Your task to perform on an android device: show emergency info Image 0: 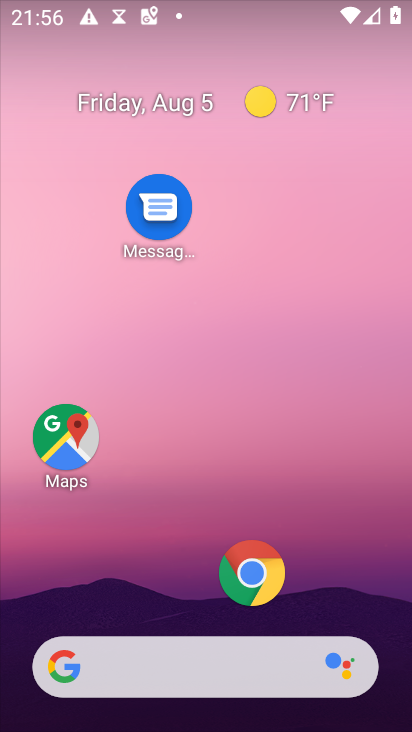
Step 0: press home button
Your task to perform on an android device: show emergency info Image 1: 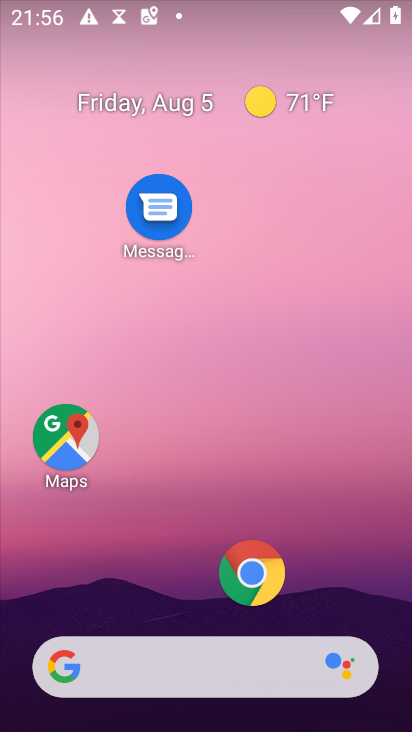
Step 1: drag from (201, 604) to (223, 17)
Your task to perform on an android device: show emergency info Image 2: 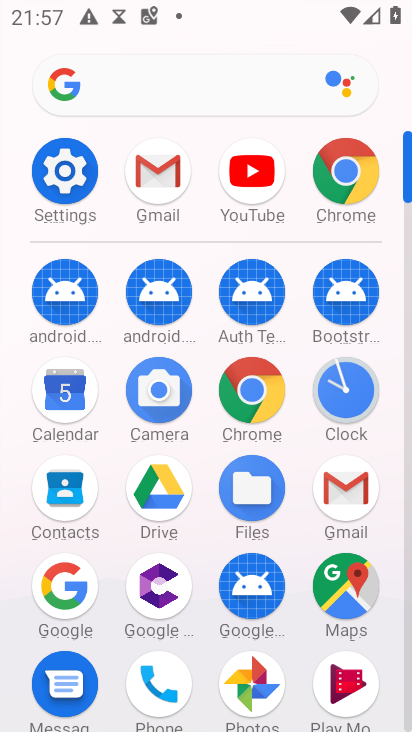
Step 2: click (63, 165)
Your task to perform on an android device: show emergency info Image 3: 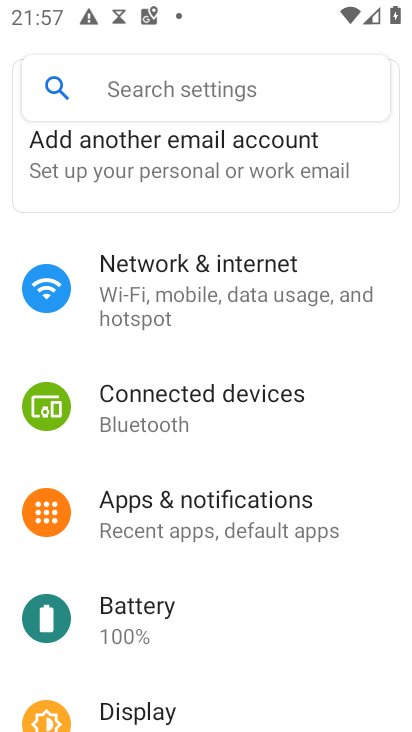
Step 3: drag from (198, 621) to (235, 104)
Your task to perform on an android device: show emergency info Image 4: 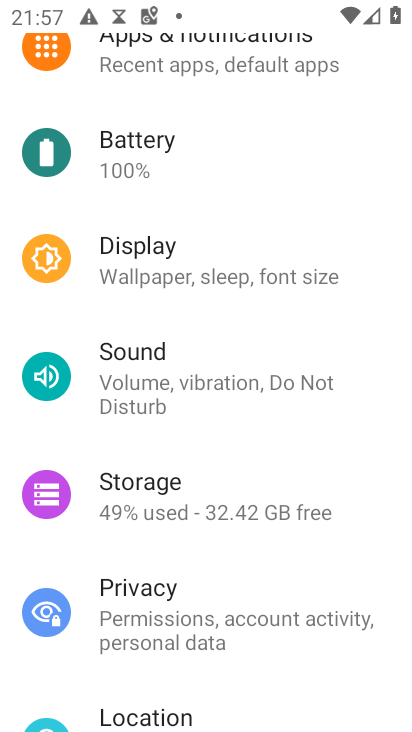
Step 4: drag from (235, 681) to (260, 200)
Your task to perform on an android device: show emergency info Image 5: 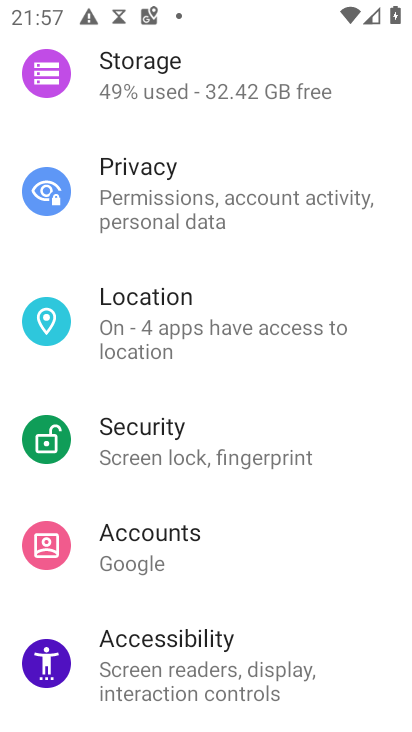
Step 5: drag from (219, 611) to (208, 92)
Your task to perform on an android device: show emergency info Image 6: 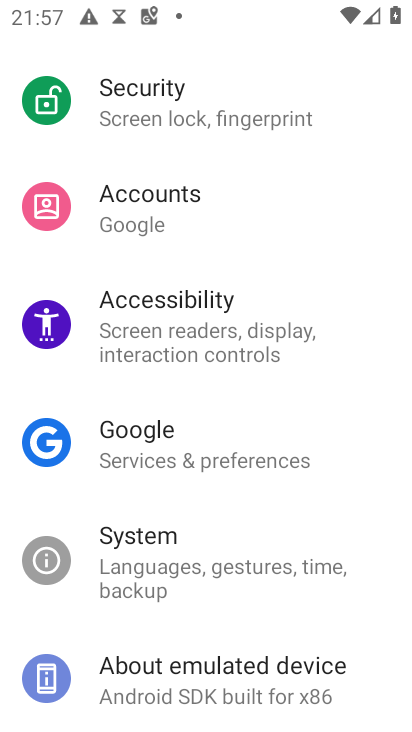
Step 6: click (198, 663)
Your task to perform on an android device: show emergency info Image 7: 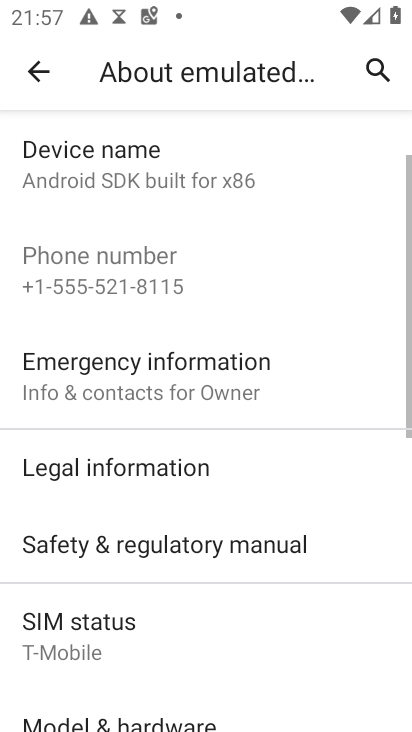
Step 7: click (202, 390)
Your task to perform on an android device: show emergency info Image 8: 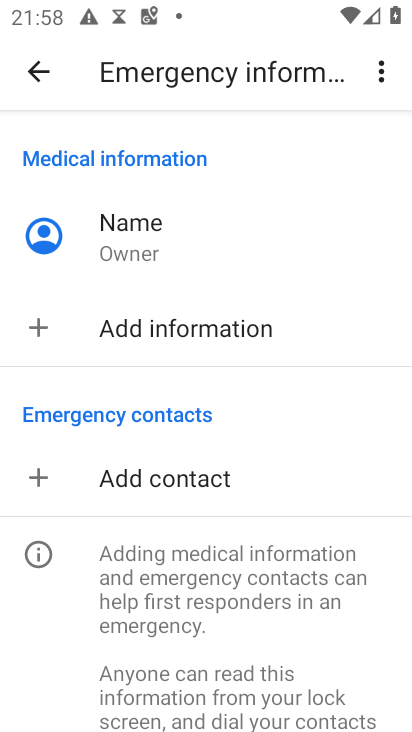
Step 8: task complete